Your task to perform on an android device: empty trash in the gmail app Image 0: 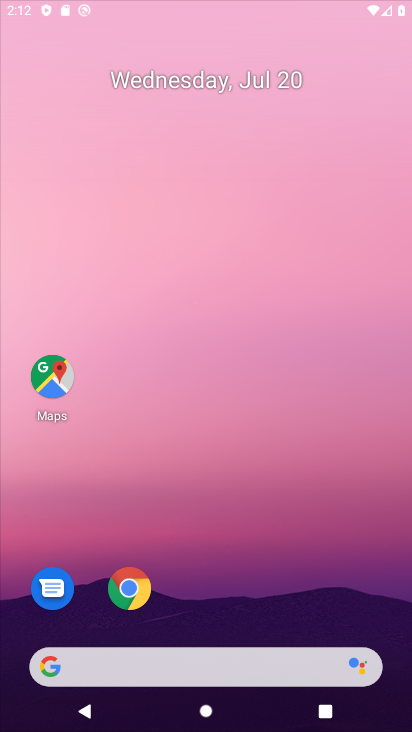
Step 0: click (280, 136)
Your task to perform on an android device: empty trash in the gmail app Image 1: 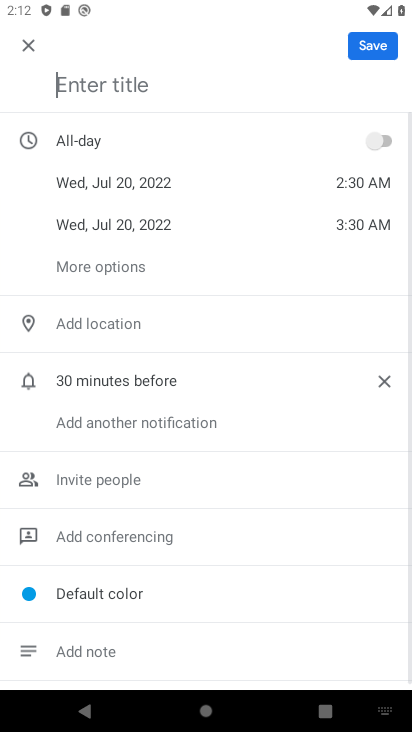
Step 1: click (27, 39)
Your task to perform on an android device: empty trash in the gmail app Image 2: 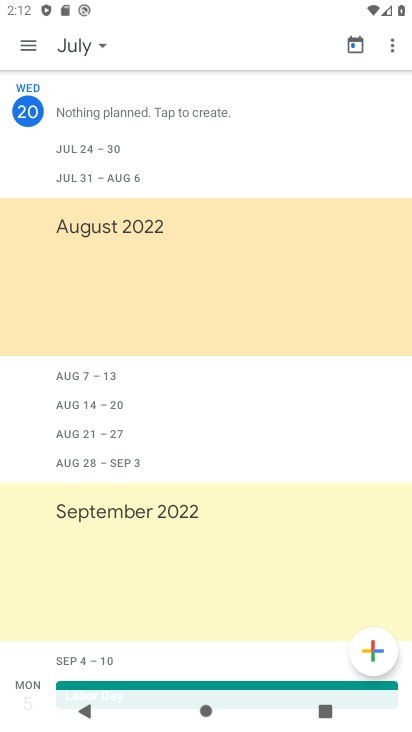
Step 2: click (40, 50)
Your task to perform on an android device: empty trash in the gmail app Image 3: 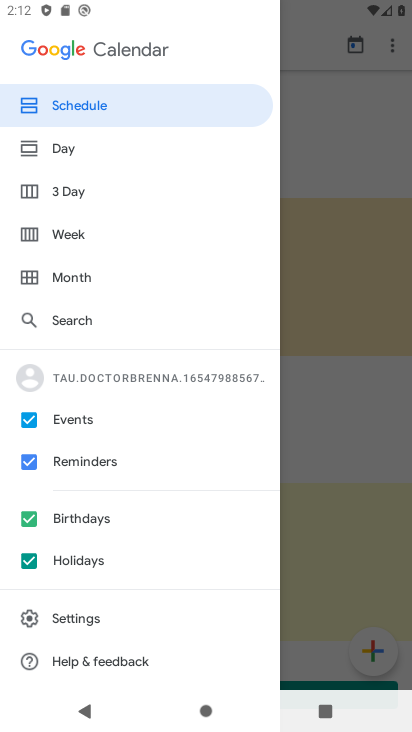
Step 3: press home button
Your task to perform on an android device: empty trash in the gmail app Image 4: 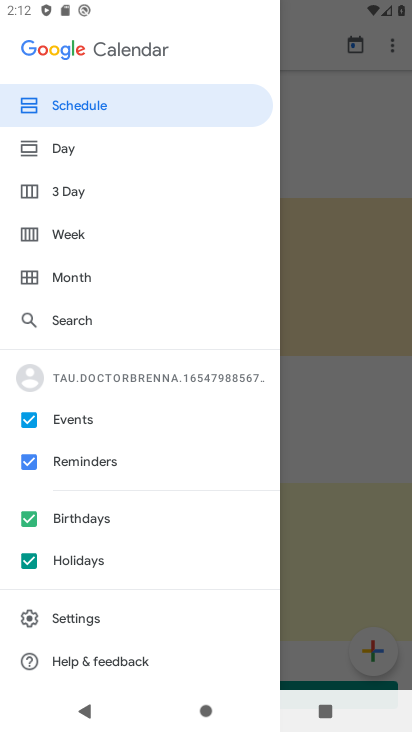
Step 4: drag from (279, 488) to (303, 79)
Your task to perform on an android device: empty trash in the gmail app Image 5: 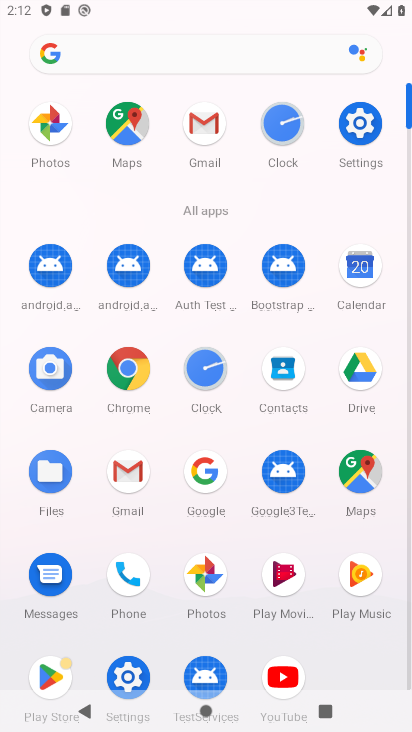
Step 5: click (138, 478)
Your task to perform on an android device: empty trash in the gmail app Image 6: 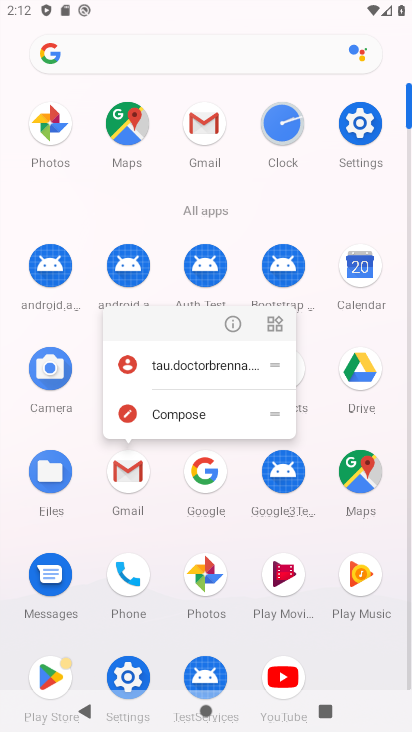
Step 6: click (229, 320)
Your task to perform on an android device: empty trash in the gmail app Image 7: 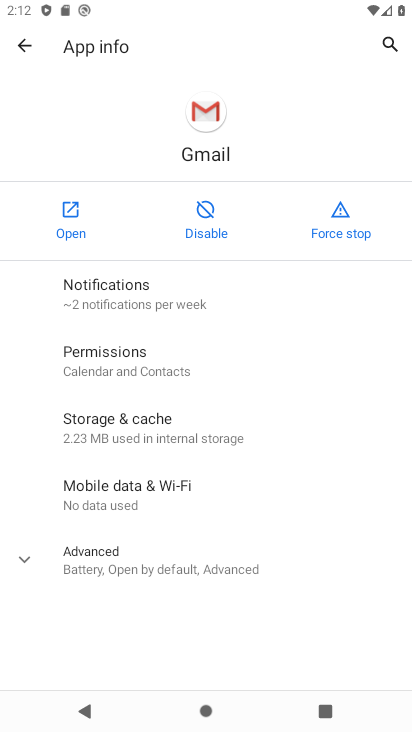
Step 7: click (62, 220)
Your task to perform on an android device: empty trash in the gmail app Image 8: 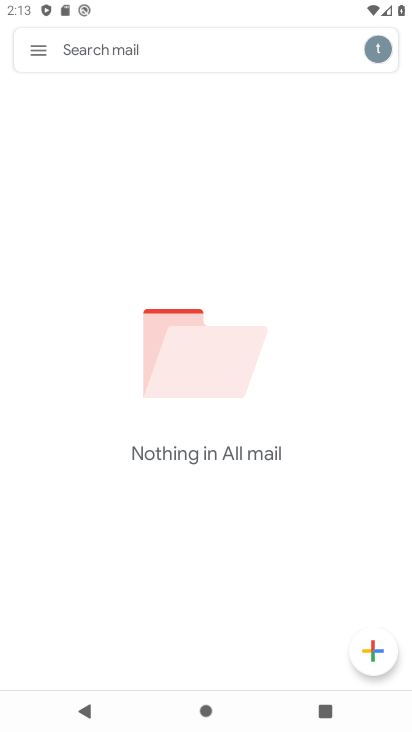
Step 8: click (36, 55)
Your task to perform on an android device: empty trash in the gmail app Image 9: 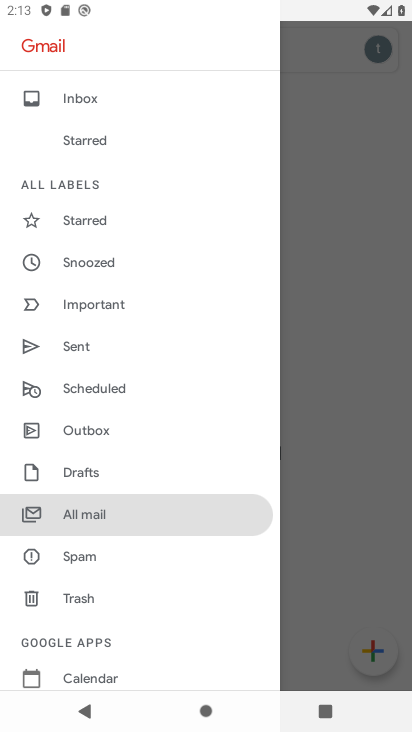
Step 9: click (360, 444)
Your task to perform on an android device: empty trash in the gmail app Image 10: 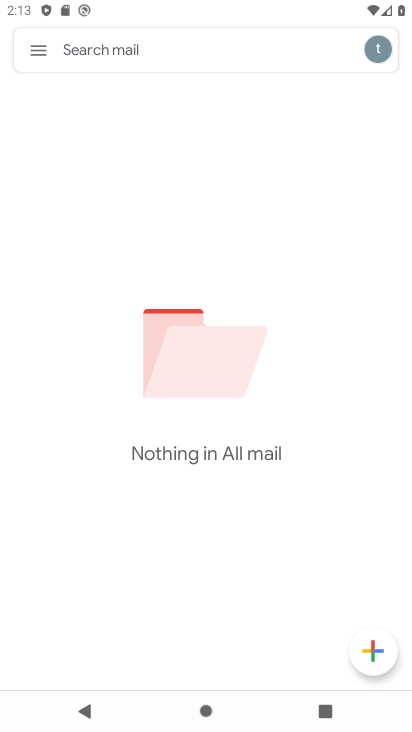
Step 10: click (32, 47)
Your task to perform on an android device: empty trash in the gmail app Image 11: 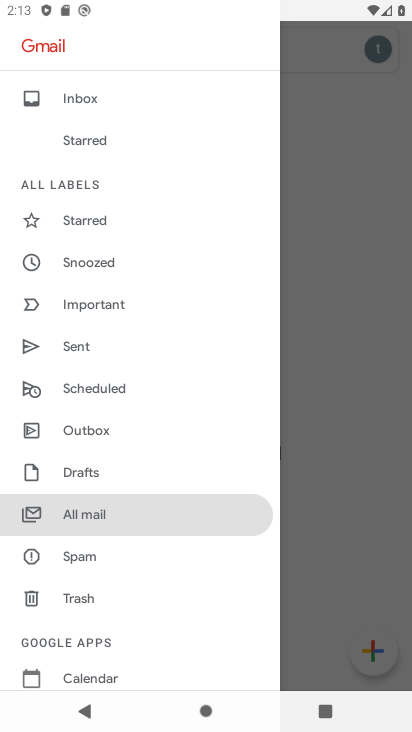
Step 11: click (79, 557)
Your task to perform on an android device: empty trash in the gmail app Image 12: 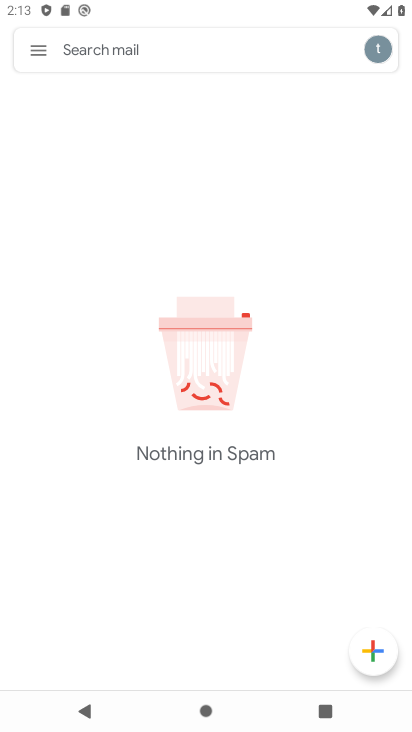
Step 12: click (30, 41)
Your task to perform on an android device: empty trash in the gmail app Image 13: 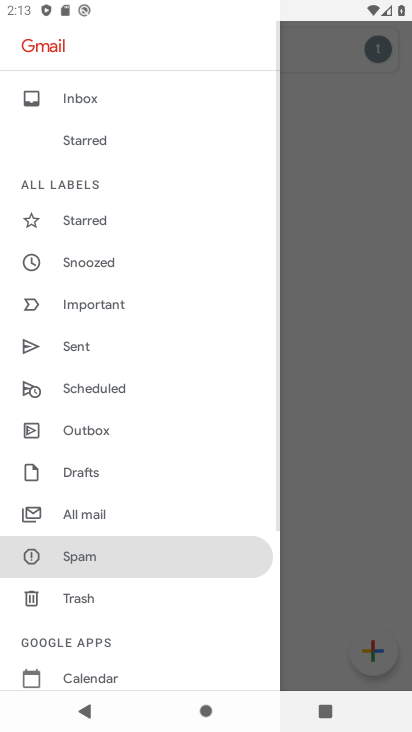
Step 13: click (67, 596)
Your task to perform on an android device: empty trash in the gmail app Image 14: 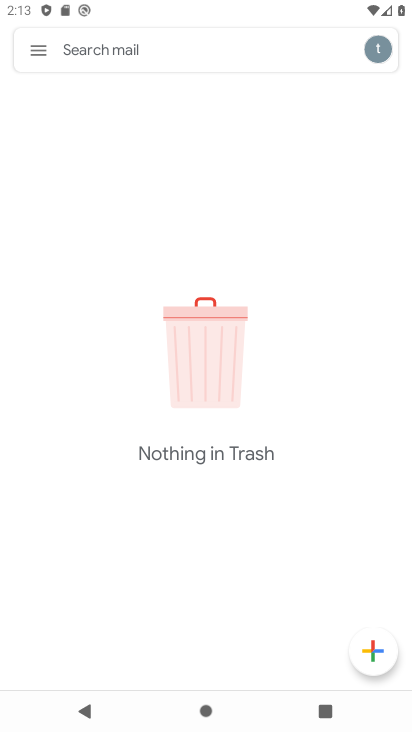
Step 14: task complete